Your task to perform on an android device: Open Youtube and go to the subscriptions tab Image 0: 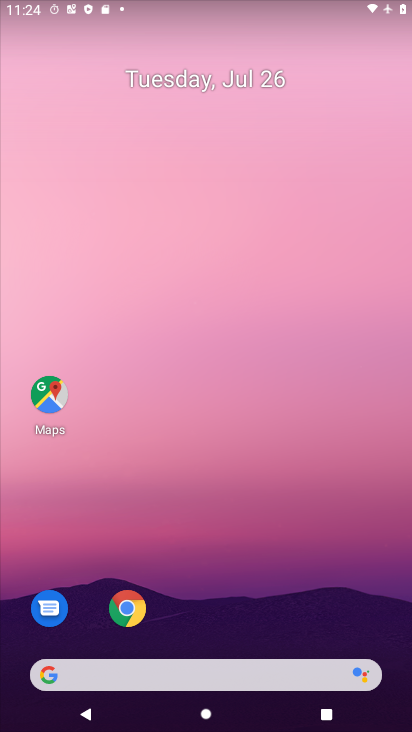
Step 0: drag from (230, 604) to (218, 107)
Your task to perform on an android device: Open Youtube and go to the subscriptions tab Image 1: 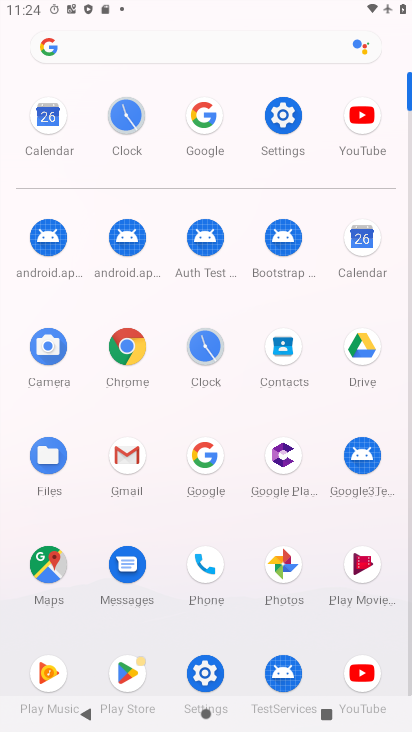
Step 1: click (368, 672)
Your task to perform on an android device: Open Youtube and go to the subscriptions tab Image 2: 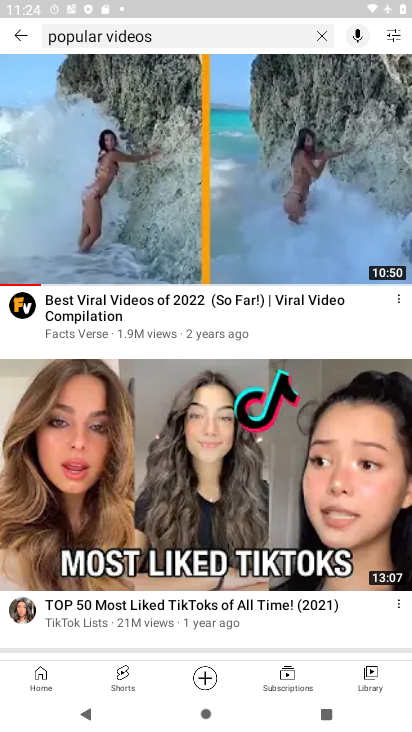
Step 2: click (299, 667)
Your task to perform on an android device: Open Youtube and go to the subscriptions tab Image 3: 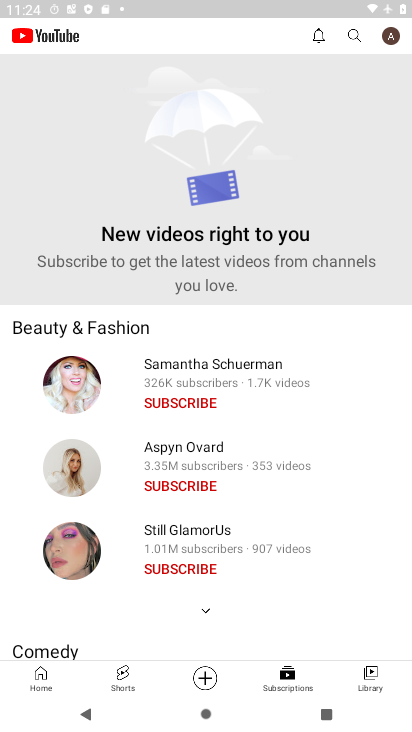
Step 3: task complete